Your task to perform on an android device: Go to display settings Image 0: 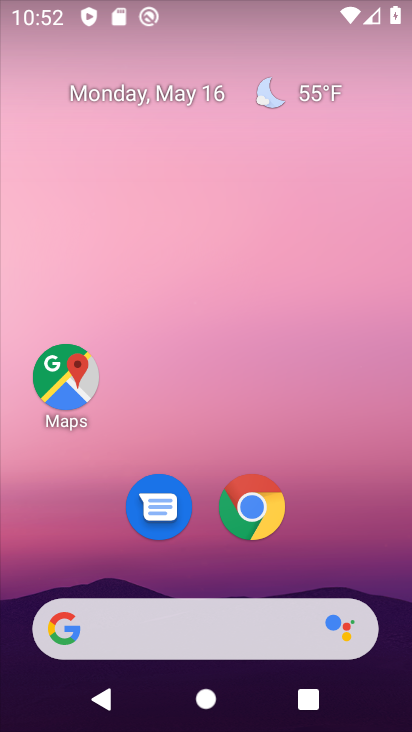
Step 0: drag from (336, 496) to (353, 132)
Your task to perform on an android device: Go to display settings Image 1: 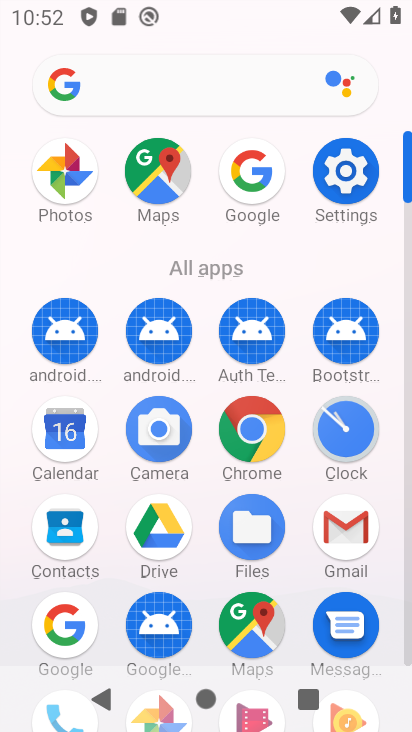
Step 1: click (350, 186)
Your task to perform on an android device: Go to display settings Image 2: 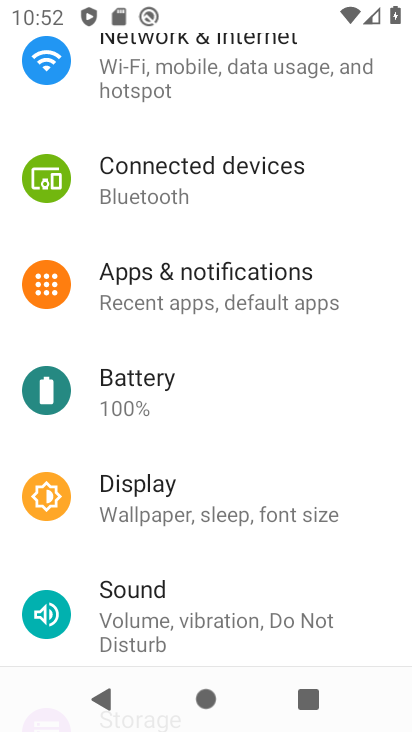
Step 2: click (169, 503)
Your task to perform on an android device: Go to display settings Image 3: 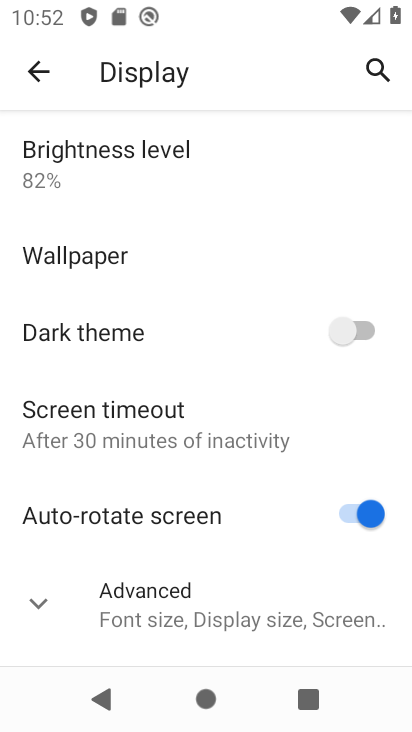
Step 3: task complete